Your task to perform on an android device: Go to display settings Image 0: 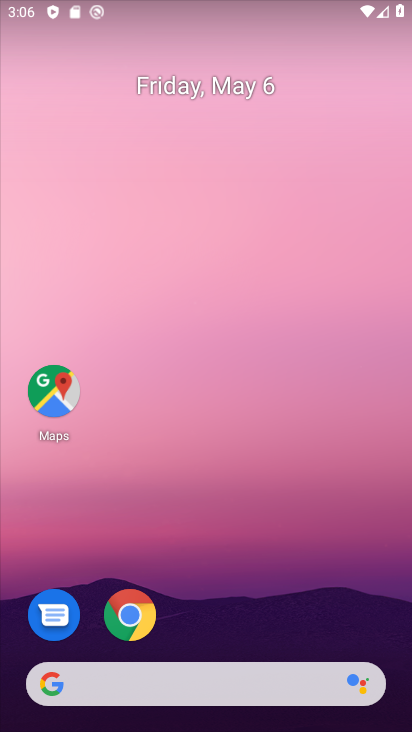
Step 0: drag from (304, 619) to (295, 13)
Your task to perform on an android device: Go to display settings Image 1: 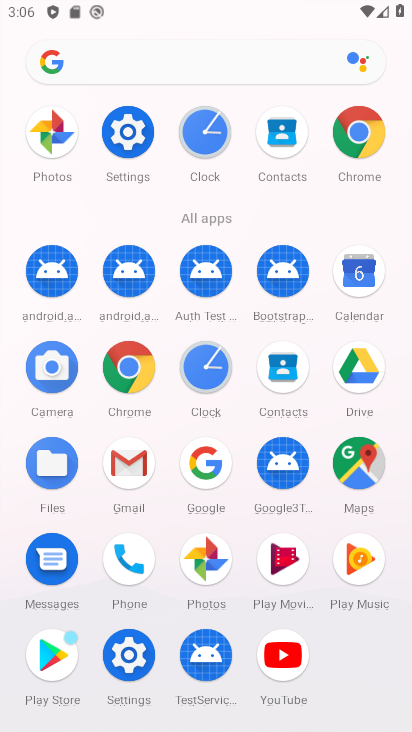
Step 1: click (118, 143)
Your task to perform on an android device: Go to display settings Image 2: 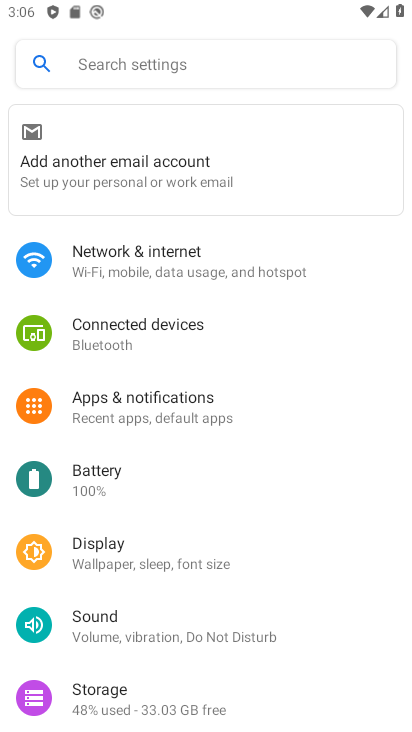
Step 2: click (117, 569)
Your task to perform on an android device: Go to display settings Image 3: 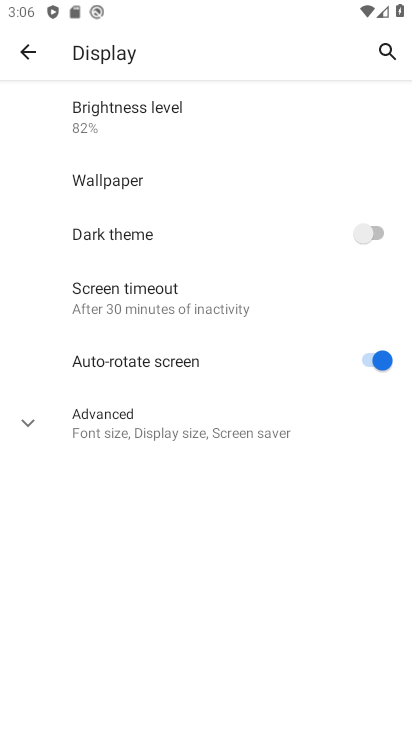
Step 3: task complete